Your task to perform on an android device: Play the last video I watched on Youtube Image 0: 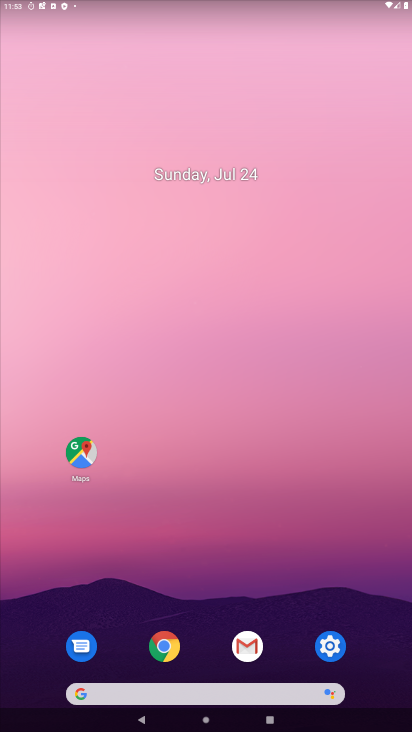
Step 0: drag from (268, 688) to (203, 230)
Your task to perform on an android device: Play the last video I watched on Youtube Image 1: 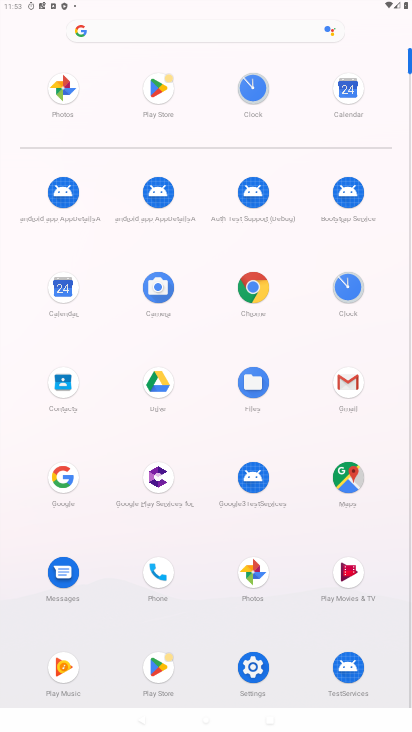
Step 1: drag from (100, 546) to (88, 353)
Your task to perform on an android device: Play the last video I watched on Youtube Image 2: 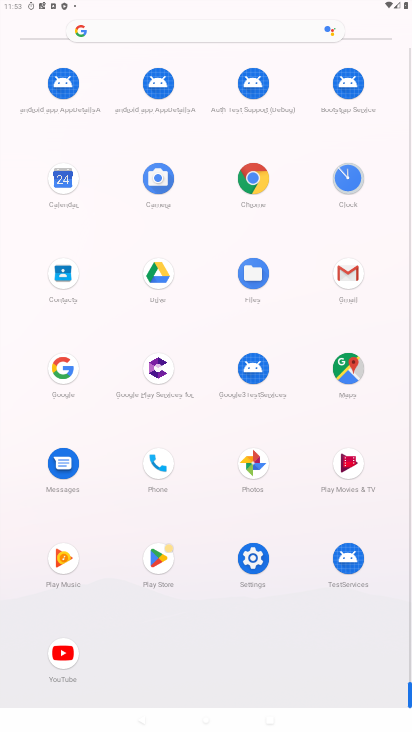
Step 2: click (79, 666)
Your task to perform on an android device: Play the last video I watched on Youtube Image 3: 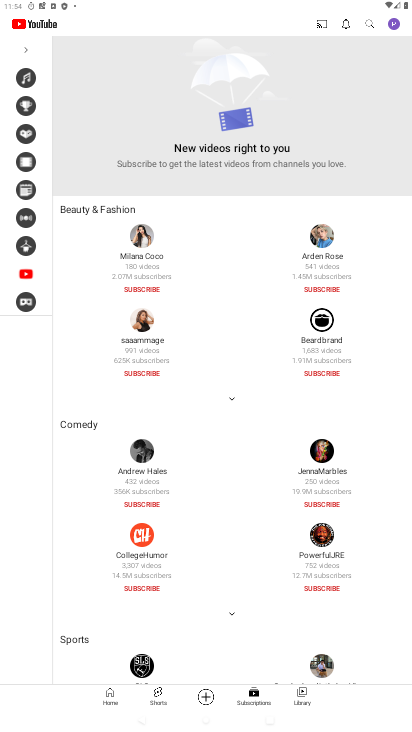
Step 3: task complete